Your task to perform on an android device: Open the calendar app, open the side menu, and click the "Day" option Image 0: 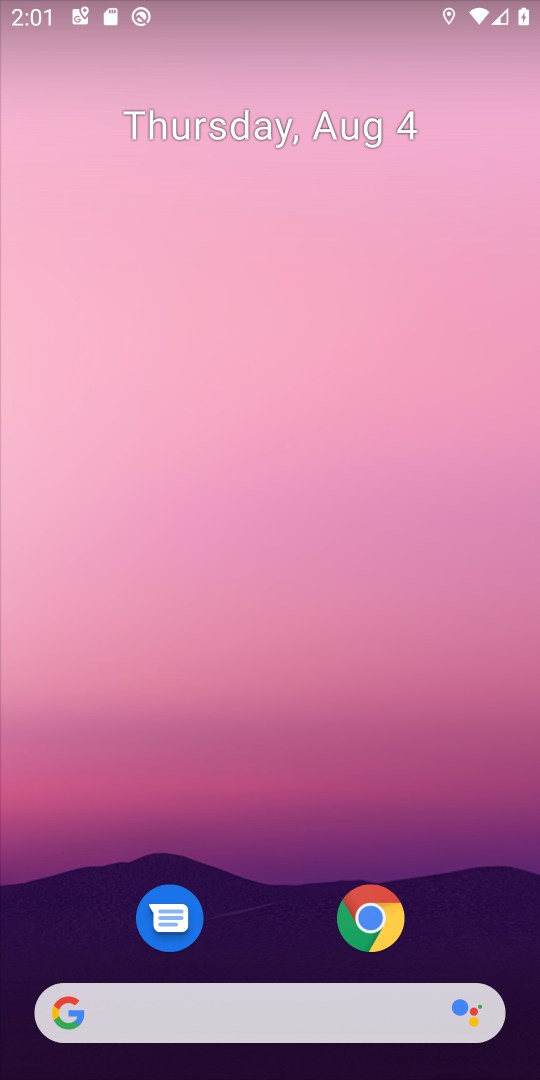
Step 0: press back button
Your task to perform on an android device: Open the calendar app, open the side menu, and click the "Day" option Image 1: 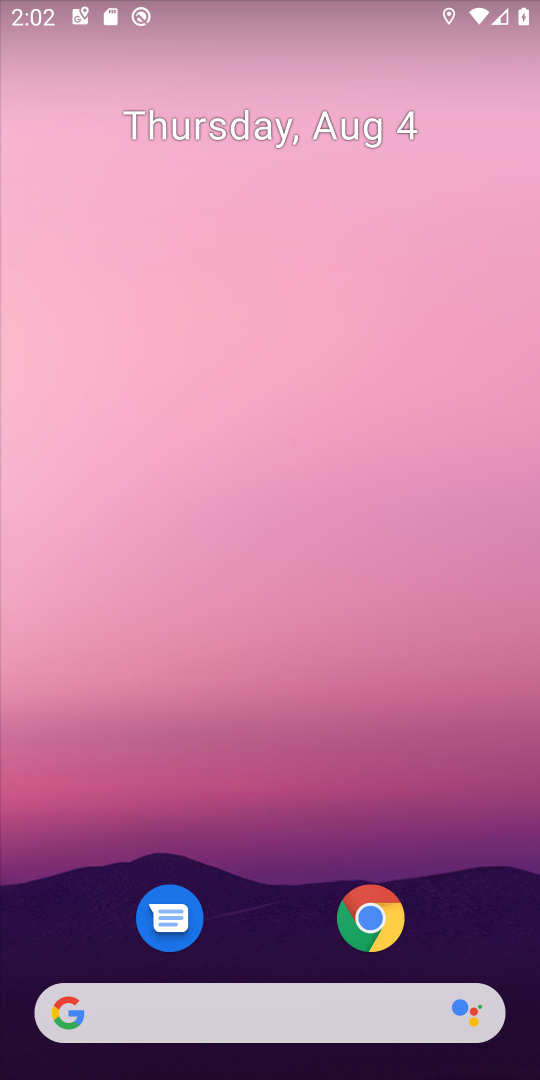
Step 1: drag from (254, 883) to (222, 374)
Your task to perform on an android device: Open the calendar app, open the side menu, and click the "Day" option Image 2: 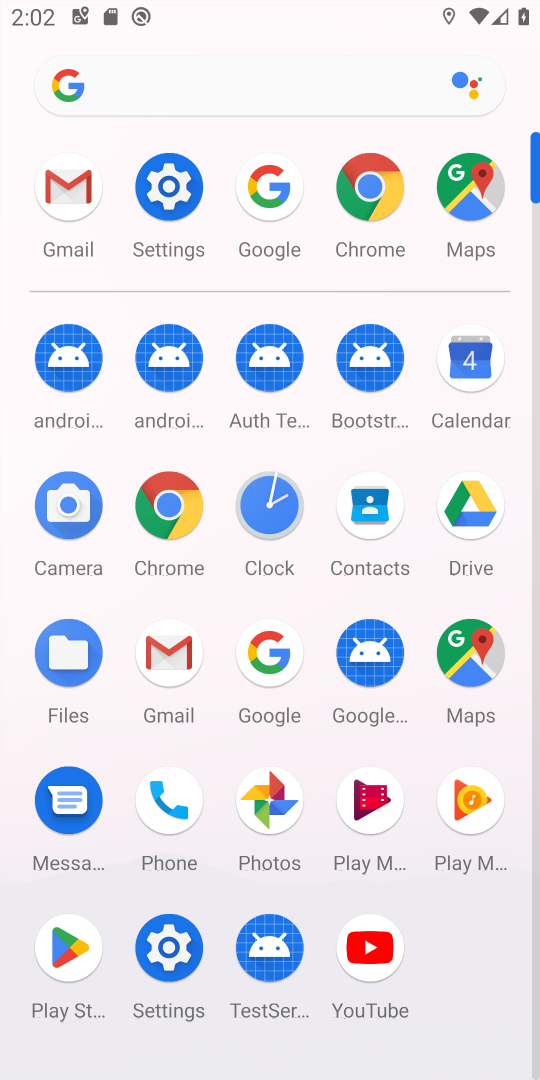
Step 2: click (477, 366)
Your task to perform on an android device: Open the calendar app, open the side menu, and click the "Day" option Image 3: 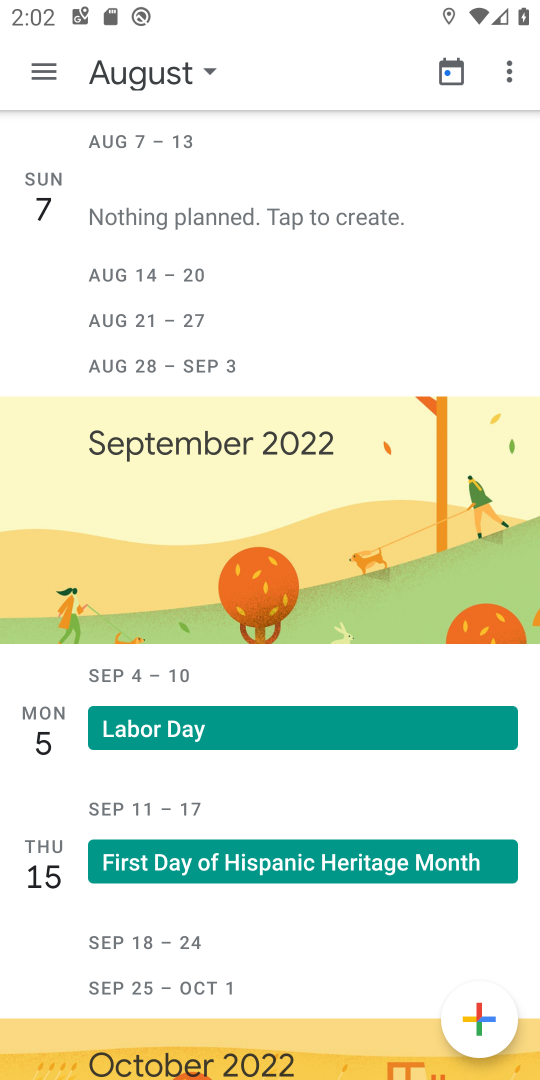
Step 3: click (62, 59)
Your task to perform on an android device: Open the calendar app, open the side menu, and click the "Day" option Image 4: 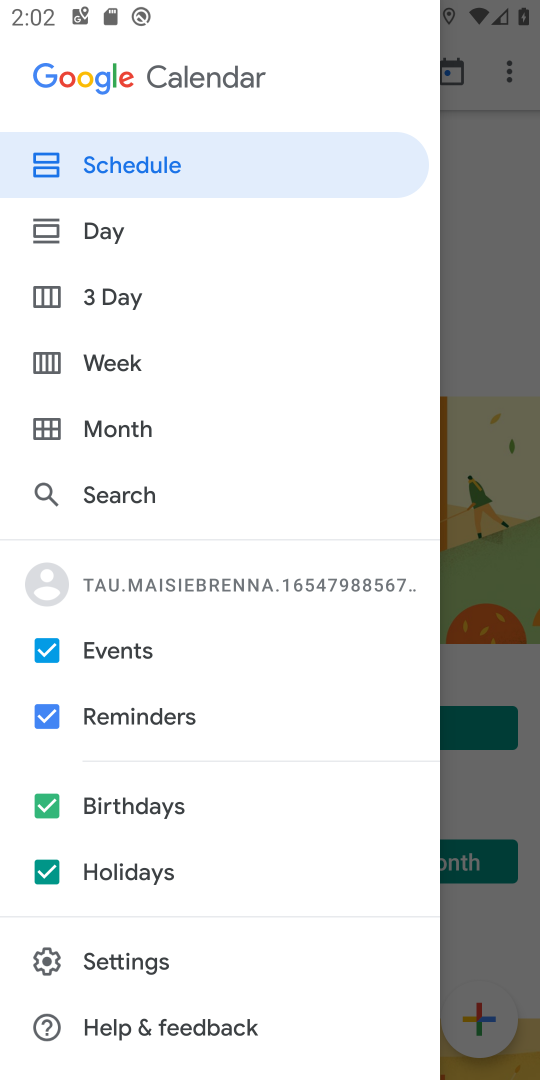
Step 4: click (178, 239)
Your task to perform on an android device: Open the calendar app, open the side menu, and click the "Day" option Image 5: 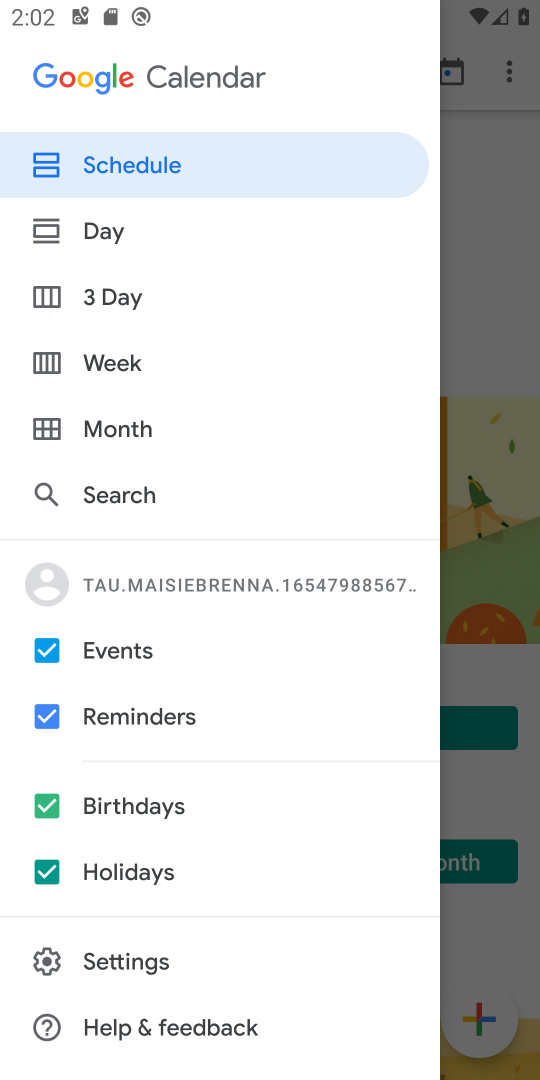
Step 5: click (168, 239)
Your task to perform on an android device: Open the calendar app, open the side menu, and click the "Day" option Image 6: 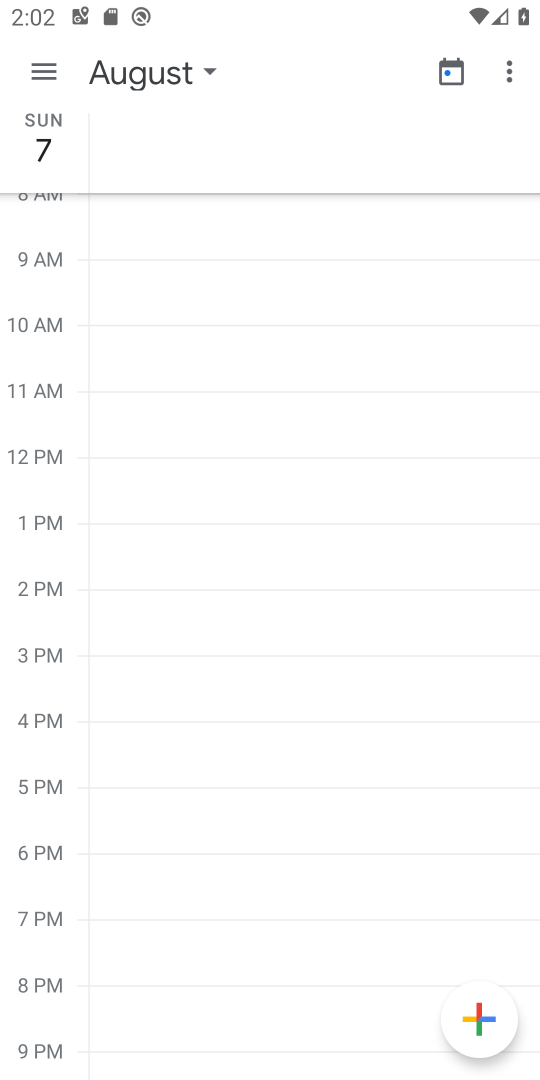
Step 6: task complete